Your task to perform on an android device: star an email in the gmail app Image 0: 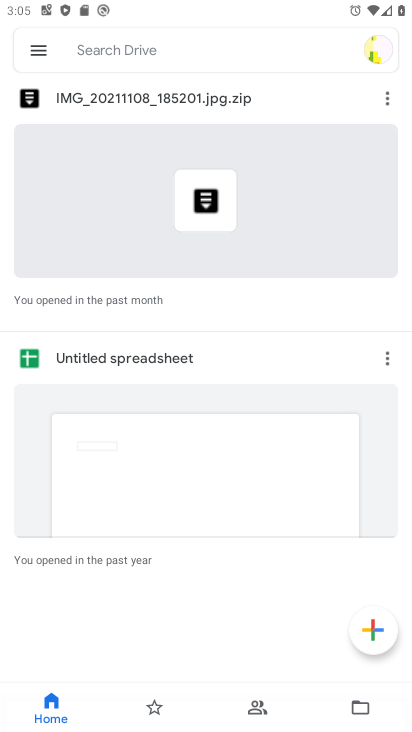
Step 0: press home button
Your task to perform on an android device: star an email in the gmail app Image 1: 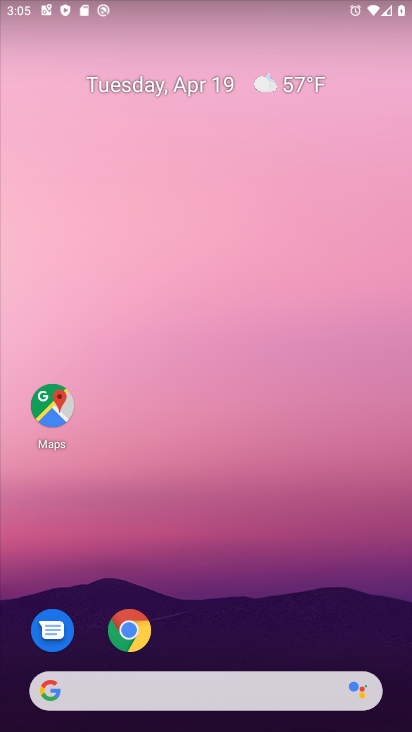
Step 1: drag from (254, 587) to (301, 2)
Your task to perform on an android device: star an email in the gmail app Image 2: 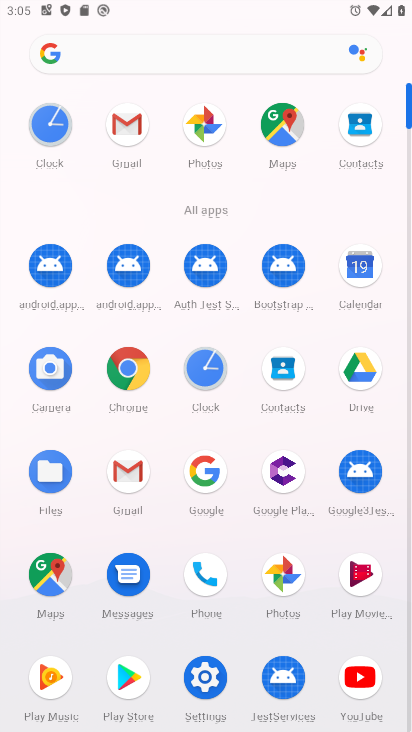
Step 2: click (132, 131)
Your task to perform on an android device: star an email in the gmail app Image 3: 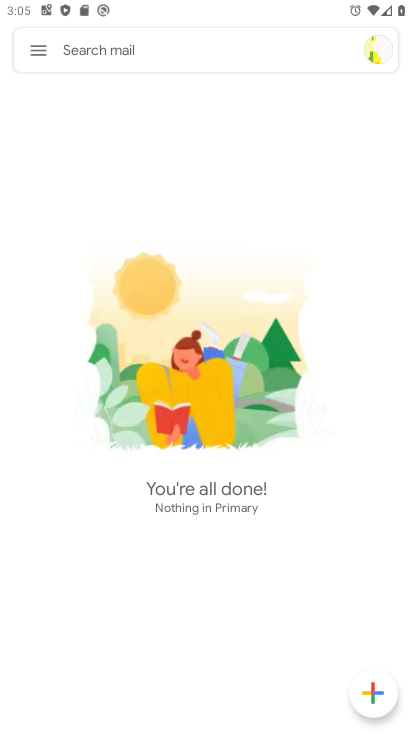
Step 3: click (38, 48)
Your task to perform on an android device: star an email in the gmail app Image 4: 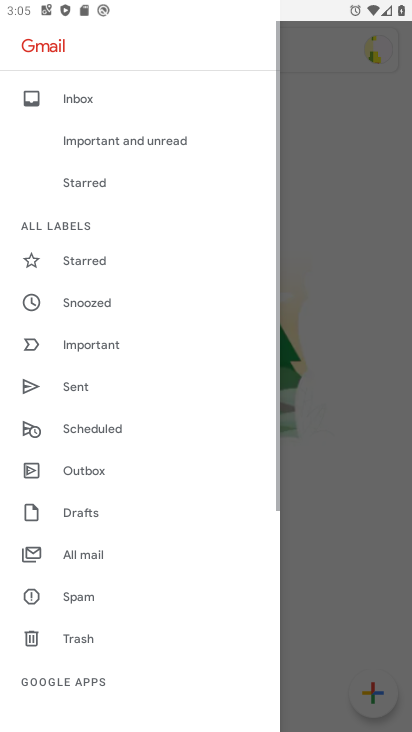
Step 4: click (35, 53)
Your task to perform on an android device: star an email in the gmail app Image 5: 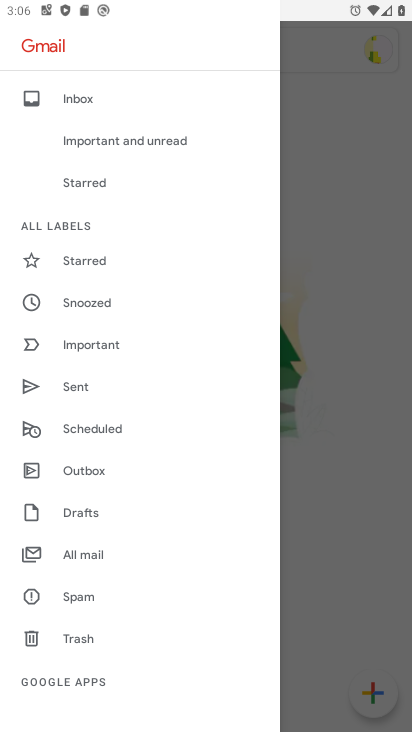
Step 5: click (69, 549)
Your task to perform on an android device: star an email in the gmail app Image 6: 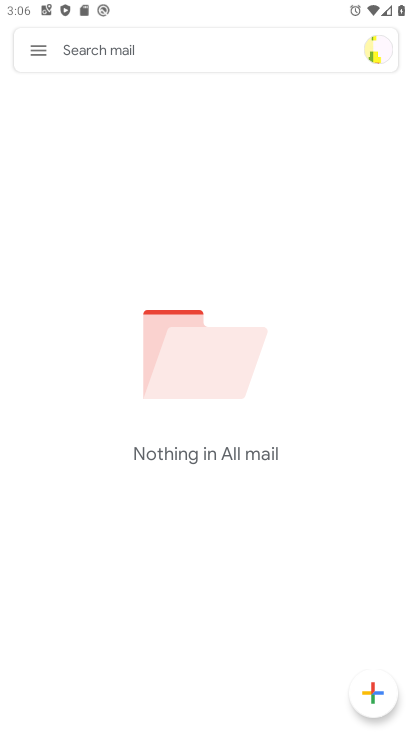
Step 6: task complete